Your task to perform on an android device: Open display settings Image 0: 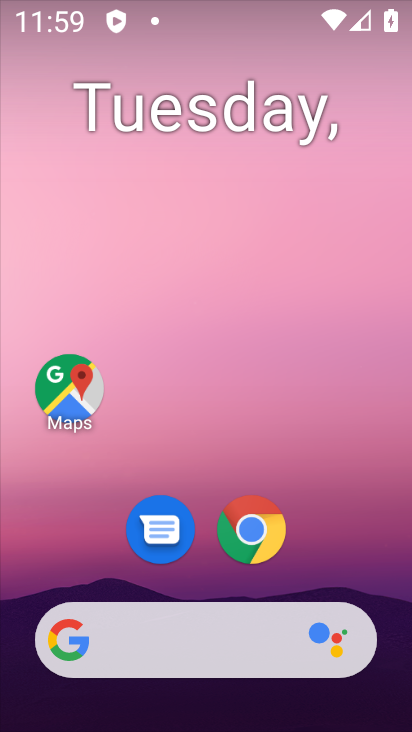
Step 0: drag from (198, 588) to (163, 38)
Your task to perform on an android device: Open display settings Image 1: 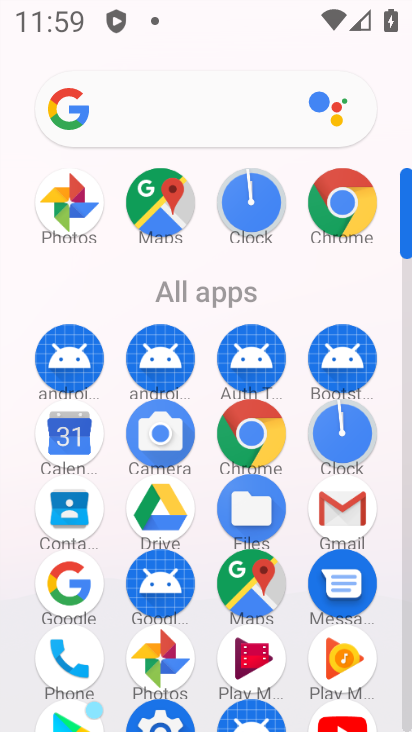
Step 1: click (159, 720)
Your task to perform on an android device: Open display settings Image 2: 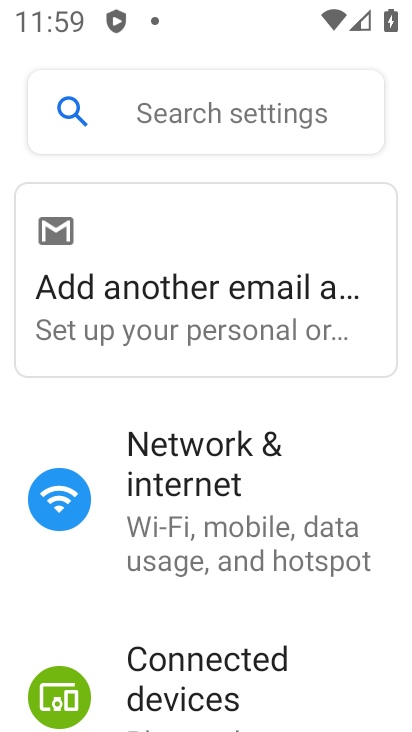
Step 2: drag from (195, 631) to (243, 77)
Your task to perform on an android device: Open display settings Image 3: 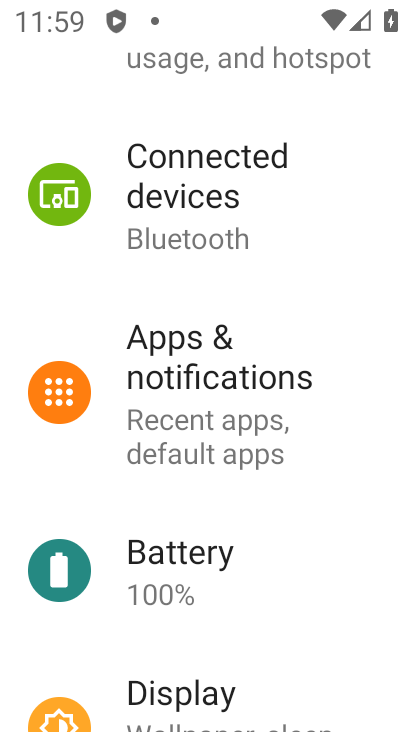
Step 3: click (201, 707)
Your task to perform on an android device: Open display settings Image 4: 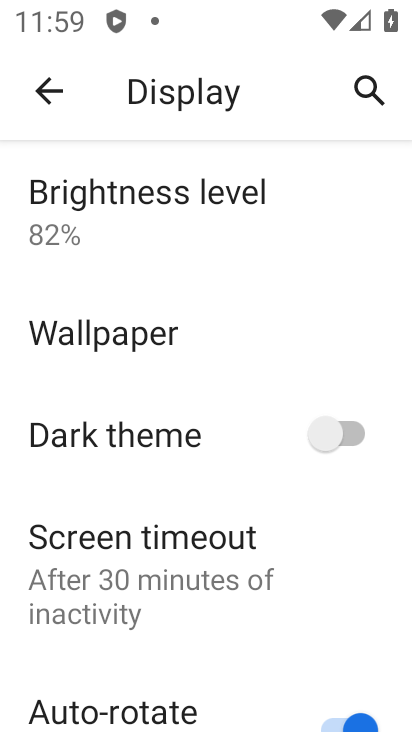
Step 4: task complete